Your task to perform on an android device: Open battery settings Image 0: 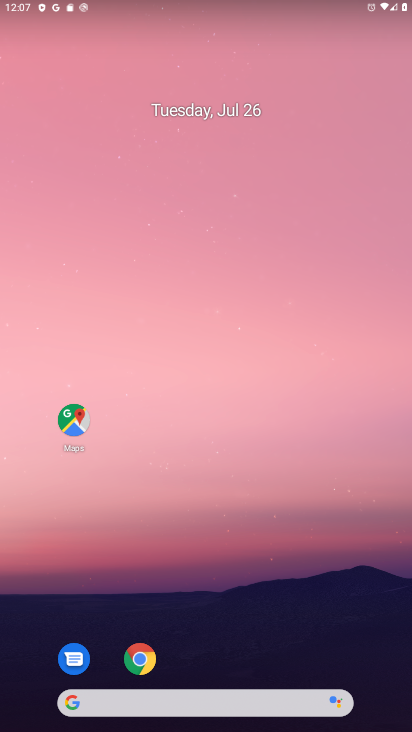
Step 0: drag from (258, 607) to (217, 125)
Your task to perform on an android device: Open battery settings Image 1: 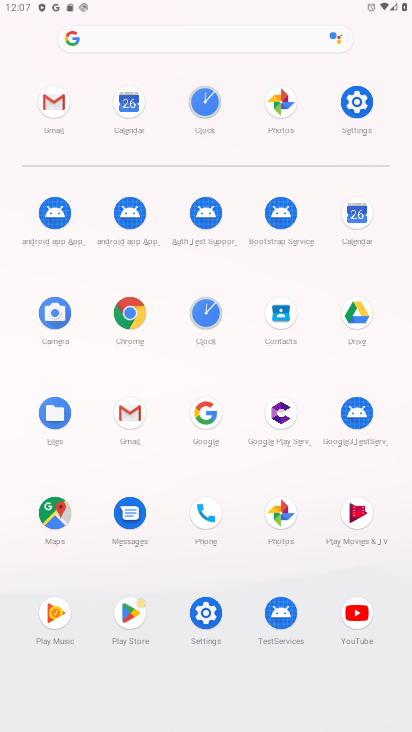
Step 1: click (354, 110)
Your task to perform on an android device: Open battery settings Image 2: 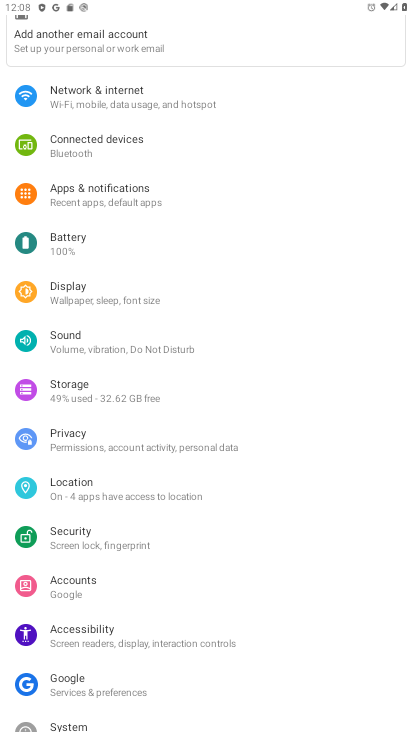
Step 2: click (68, 232)
Your task to perform on an android device: Open battery settings Image 3: 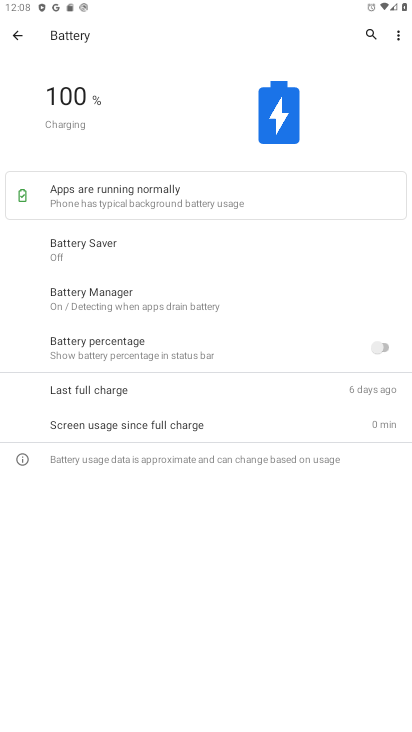
Step 3: task complete